Your task to perform on an android device: toggle pop-ups in chrome Image 0: 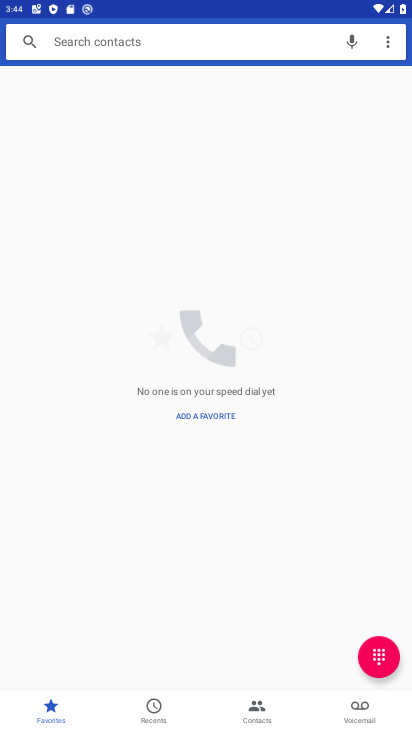
Step 0: press home button
Your task to perform on an android device: toggle pop-ups in chrome Image 1: 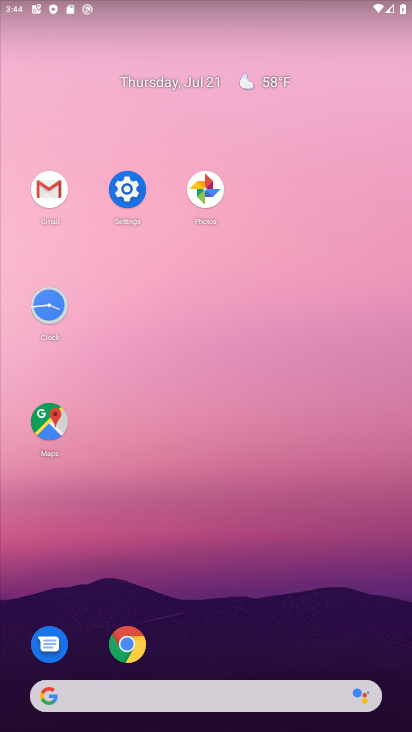
Step 1: click (131, 634)
Your task to perform on an android device: toggle pop-ups in chrome Image 2: 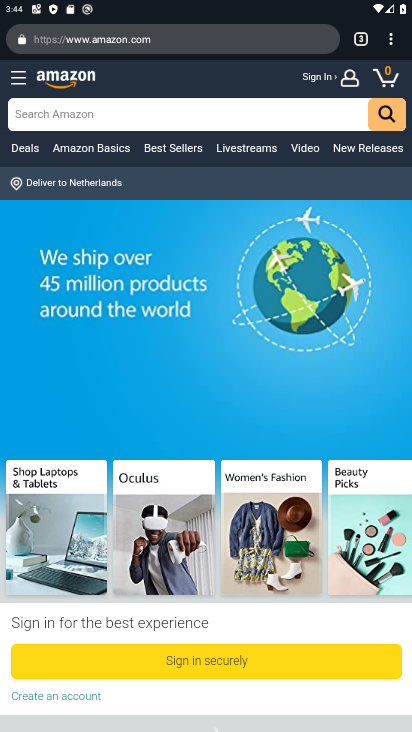
Step 2: click (395, 41)
Your task to perform on an android device: toggle pop-ups in chrome Image 3: 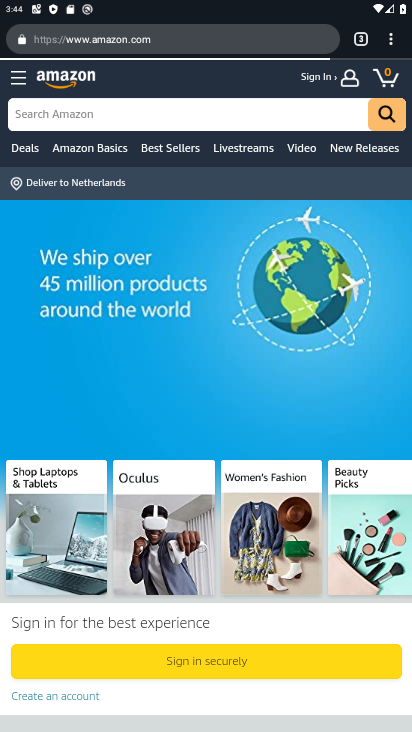
Step 3: click (389, 35)
Your task to perform on an android device: toggle pop-ups in chrome Image 4: 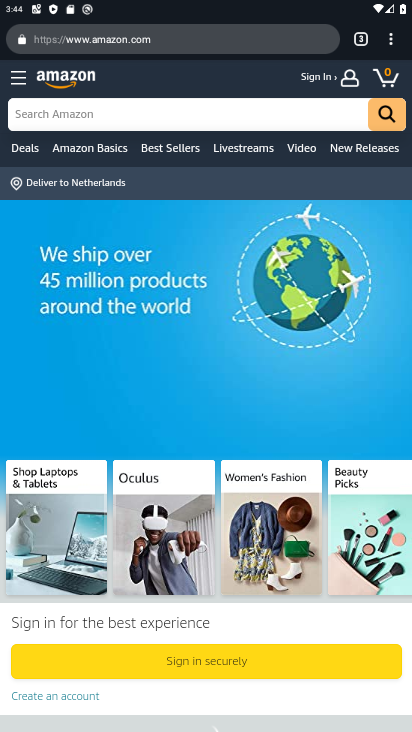
Step 4: click (388, 42)
Your task to perform on an android device: toggle pop-ups in chrome Image 5: 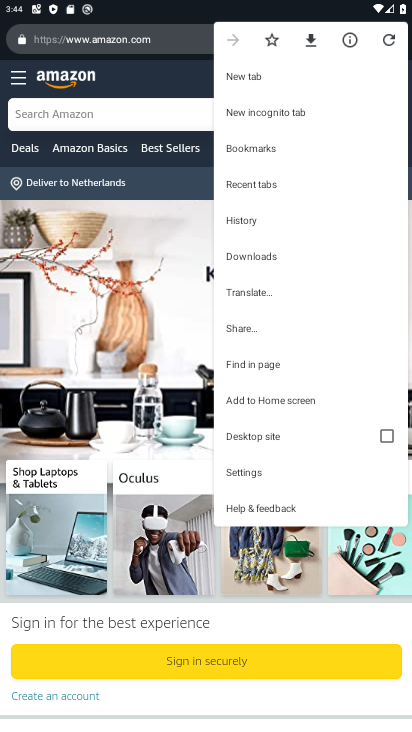
Step 5: click (231, 467)
Your task to perform on an android device: toggle pop-ups in chrome Image 6: 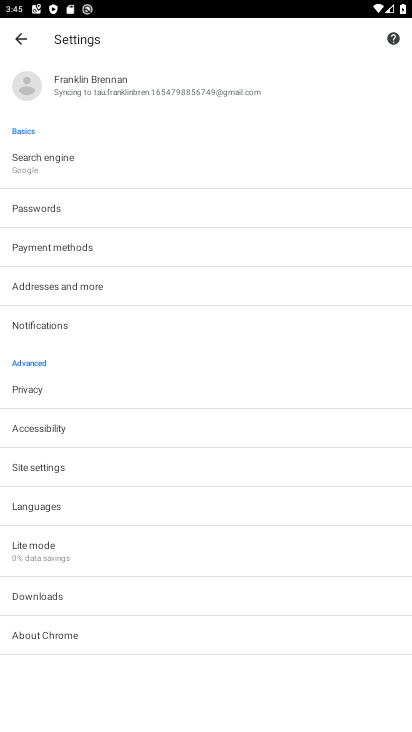
Step 6: click (78, 464)
Your task to perform on an android device: toggle pop-ups in chrome Image 7: 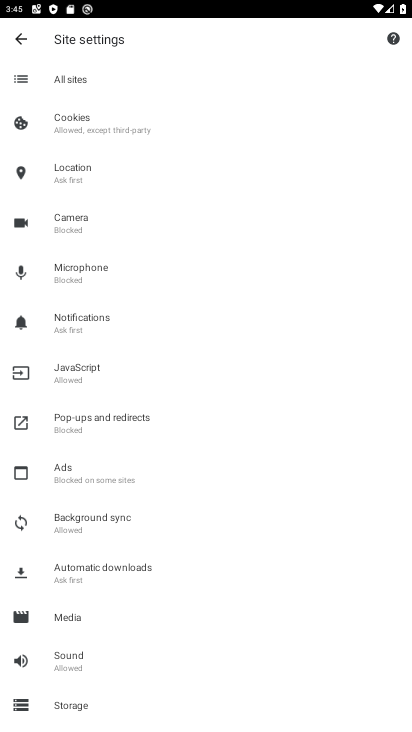
Step 7: click (109, 427)
Your task to perform on an android device: toggle pop-ups in chrome Image 8: 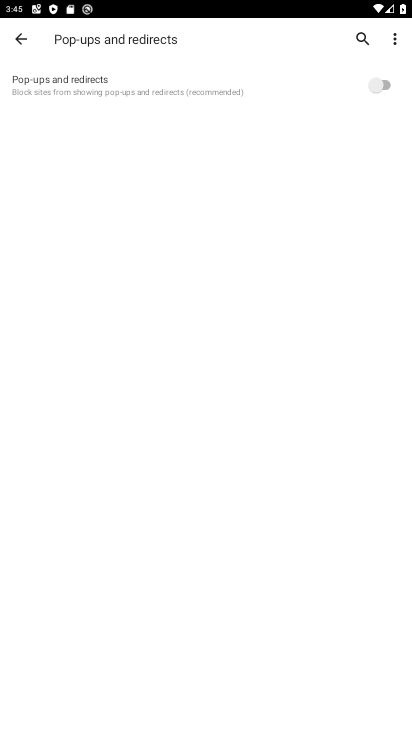
Step 8: click (373, 78)
Your task to perform on an android device: toggle pop-ups in chrome Image 9: 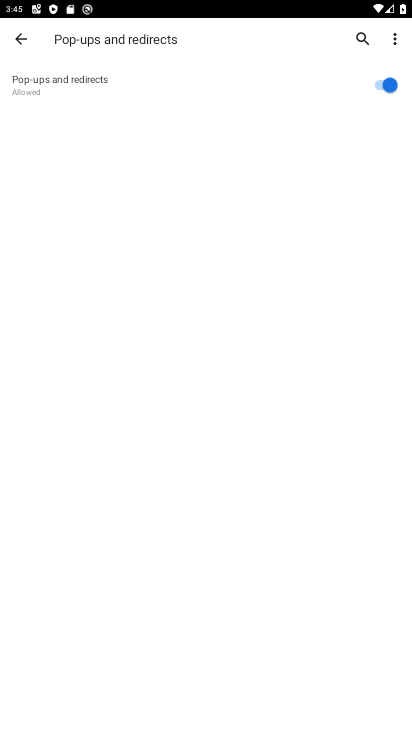
Step 9: task complete